Your task to perform on an android device: turn on translation in the chrome app Image 0: 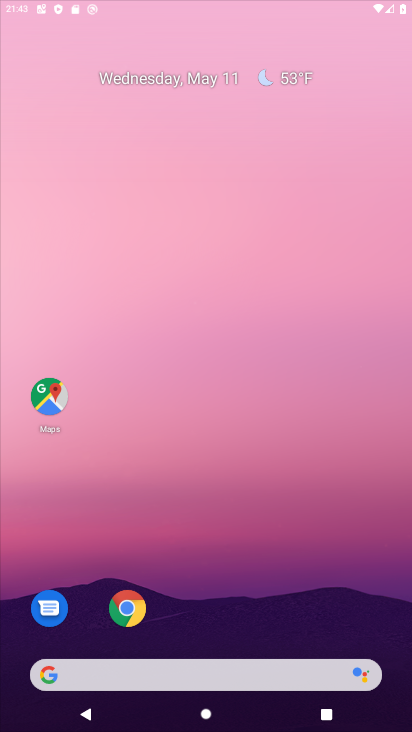
Step 0: drag from (266, 383) to (266, 212)
Your task to perform on an android device: turn on translation in the chrome app Image 1: 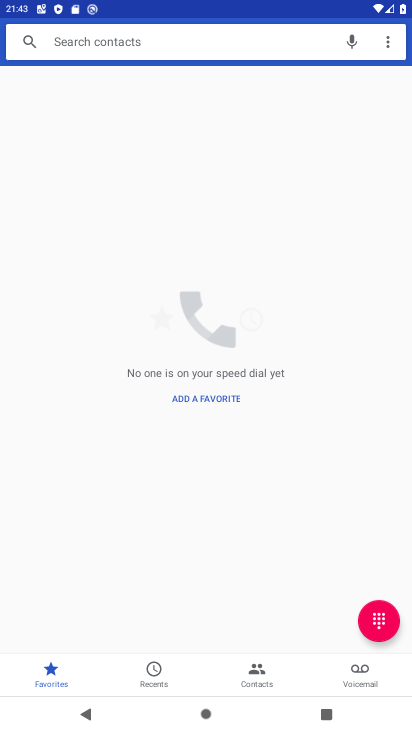
Step 1: press home button
Your task to perform on an android device: turn on translation in the chrome app Image 2: 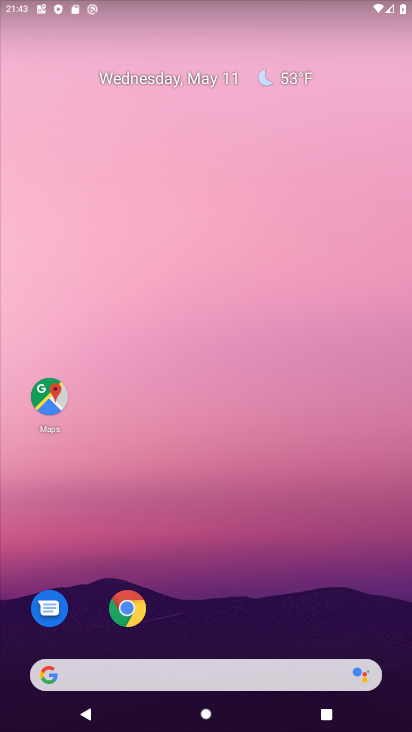
Step 2: click (128, 612)
Your task to perform on an android device: turn on translation in the chrome app Image 3: 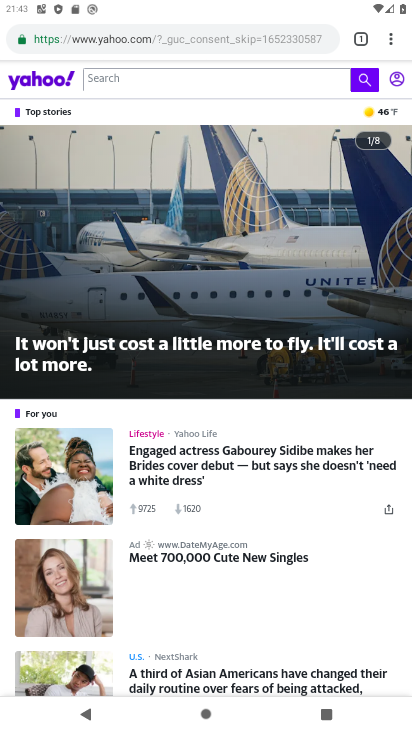
Step 3: drag from (390, 42) to (294, 474)
Your task to perform on an android device: turn on translation in the chrome app Image 4: 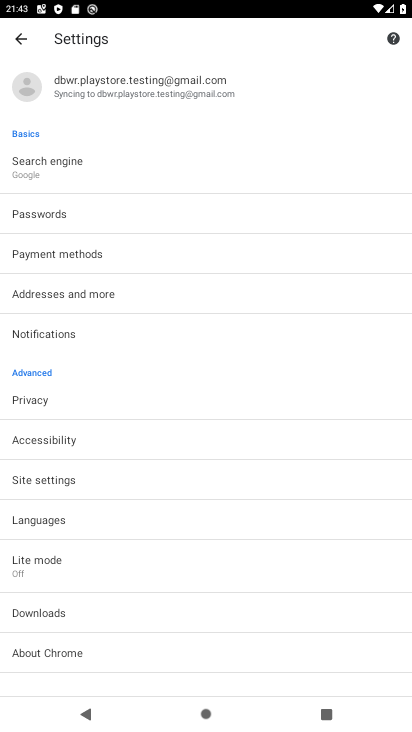
Step 4: click (52, 486)
Your task to perform on an android device: turn on translation in the chrome app Image 5: 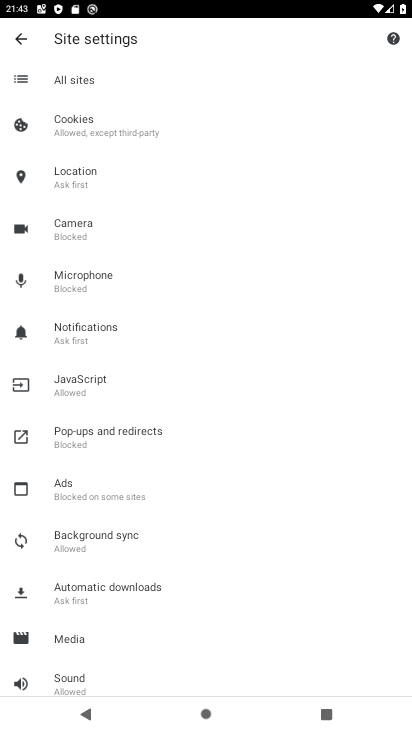
Step 5: press back button
Your task to perform on an android device: turn on translation in the chrome app Image 6: 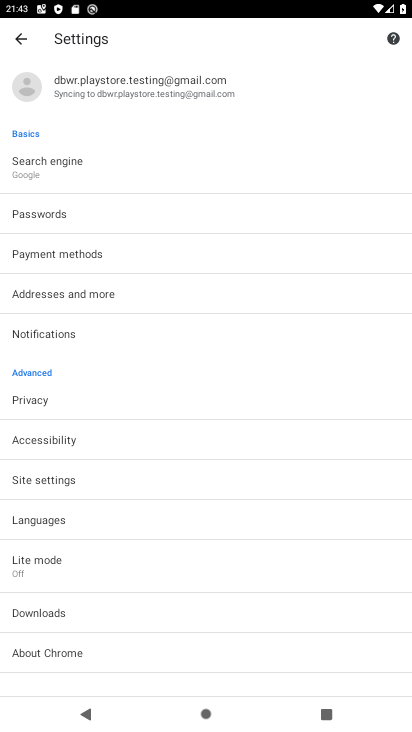
Step 6: click (54, 519)
Your task to perform on an android device: turn on translation in the chrome app Image 7: 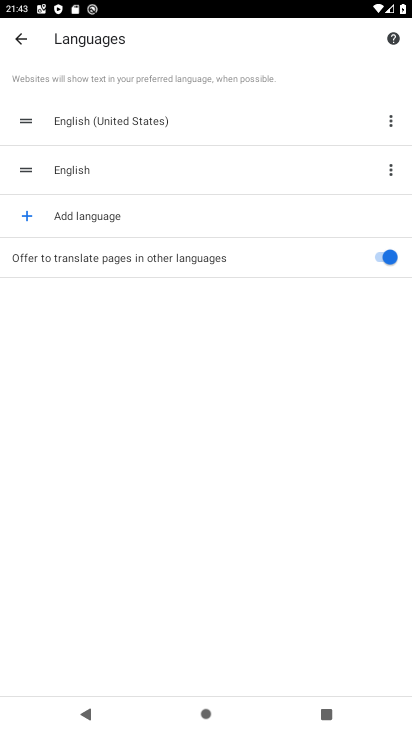
Step 7: task complete